Your task to perform on an android device: Open Youtube and go to the subscriptions tab Image 0: 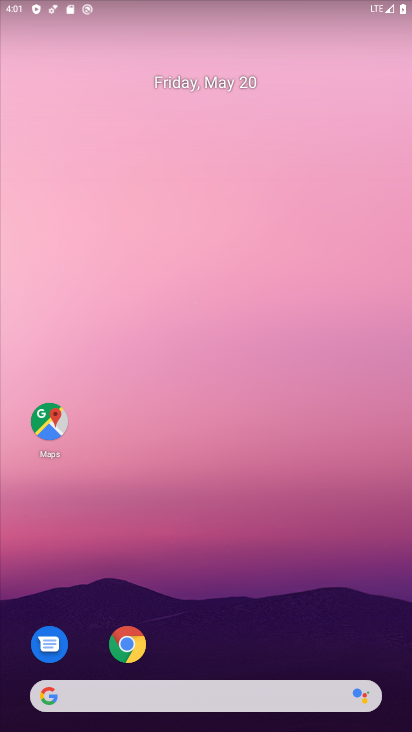
Step 0: drag from (245, 705) to (213, 206)
Your task to perform on an android device: Open Youtube and go to the subscriptions tab Image 1: 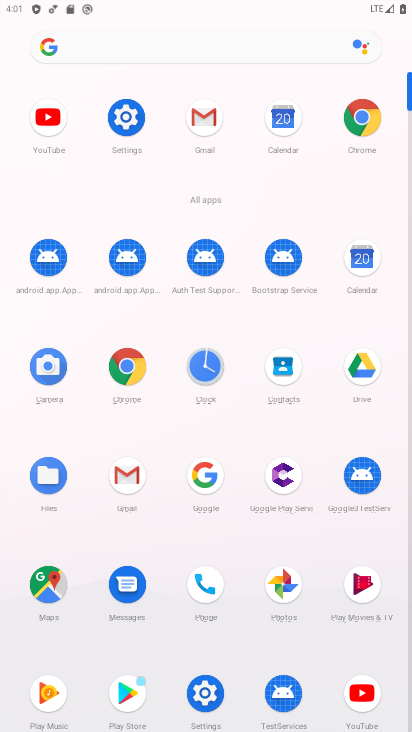
Step 1: click (355, 693)
Your task to perform on an android device: Open Youtube and go to the subscriptions tab Image 2: 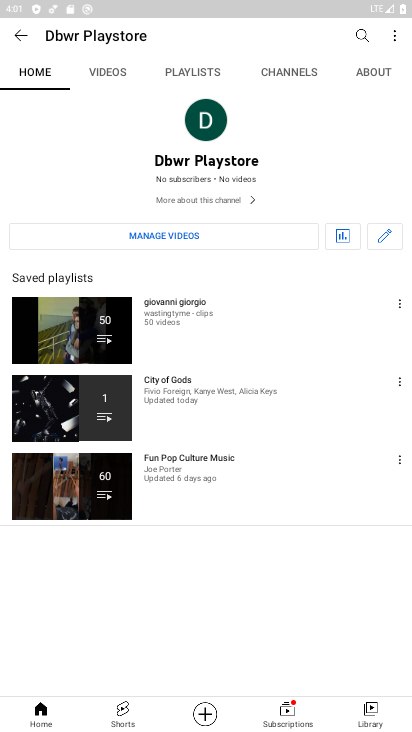
Step 2: click (277, 717)
Your task to perform on an android device: Open Youtube and go to the subscriptions tab Image 3: 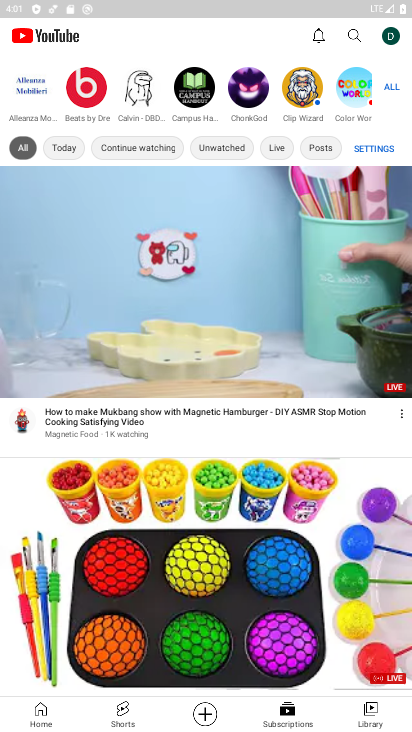
Step 3: click (279, 714)
Your task to perform on an android device: Open Youtube and go to the subscriptions tab Image 4: 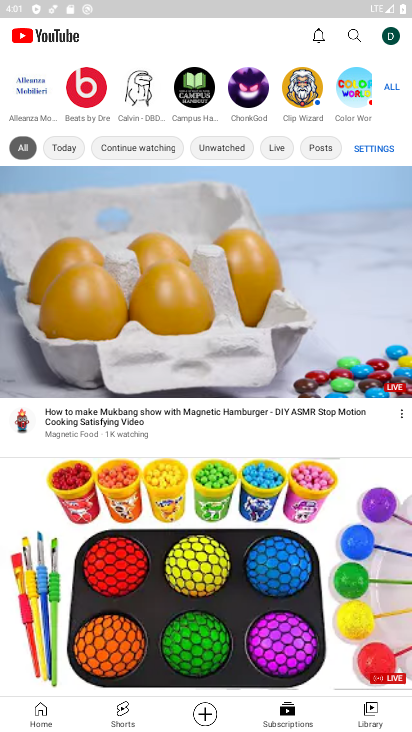
Step 4: task complete